Your task to perform on an android device: set default search engine in the chrome app Image 0: 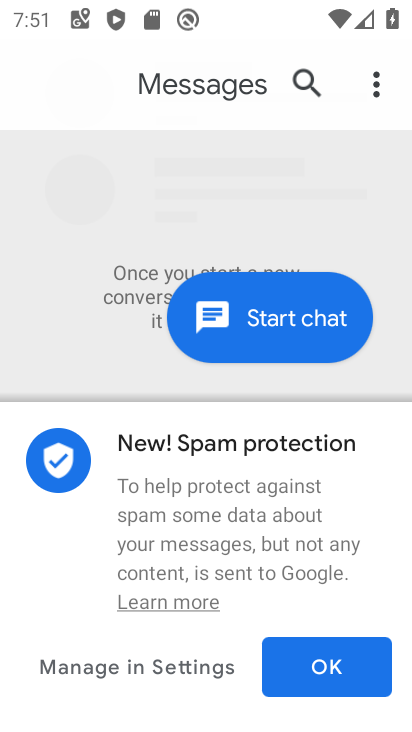
Step 0: press home button
Your task to perform on an android device: set default search engine in the chrome app Image 1: 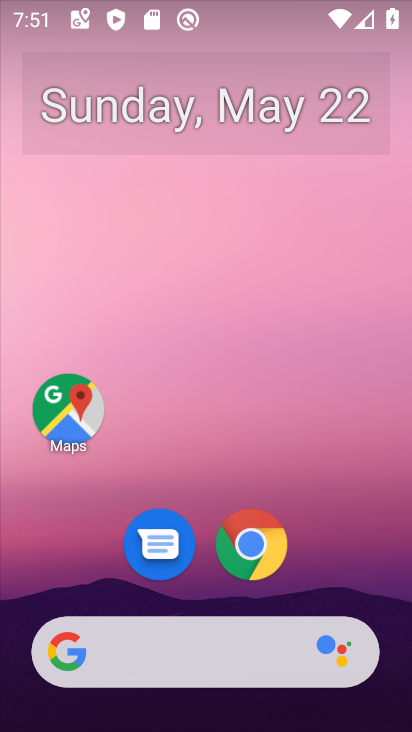
Step 1: click (255, 536)
Your task to perform on an android device: set default search engine in the chrome app Image 2: 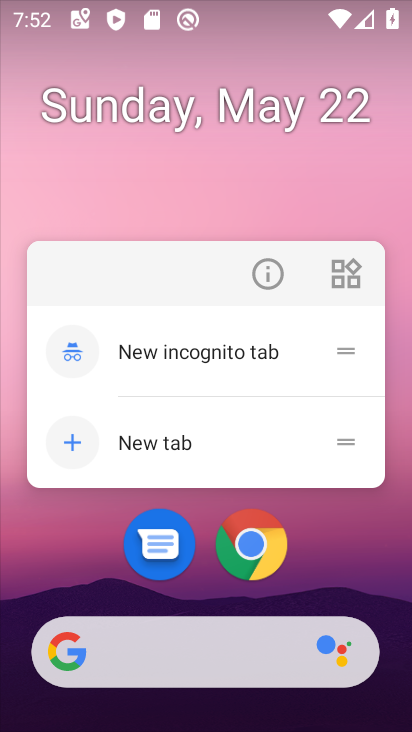
Step 2: click (255, 552)
Your task to perform on an android device: set default search engine in the chrome app Image 3: 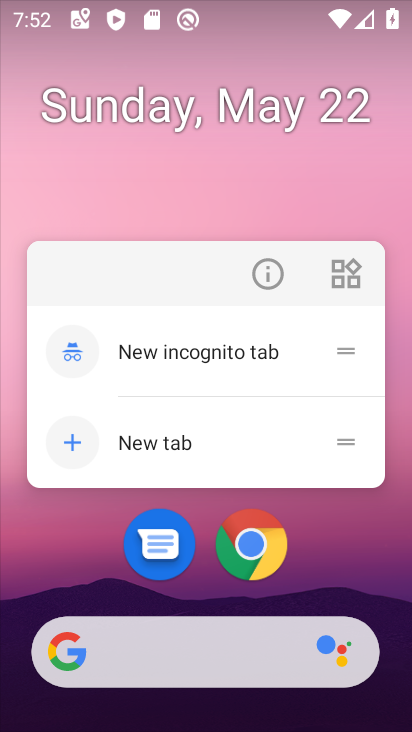
Step 3: click (249, 548)
Your task to perform on an android device: set default search engine in the chrome app Image 4: 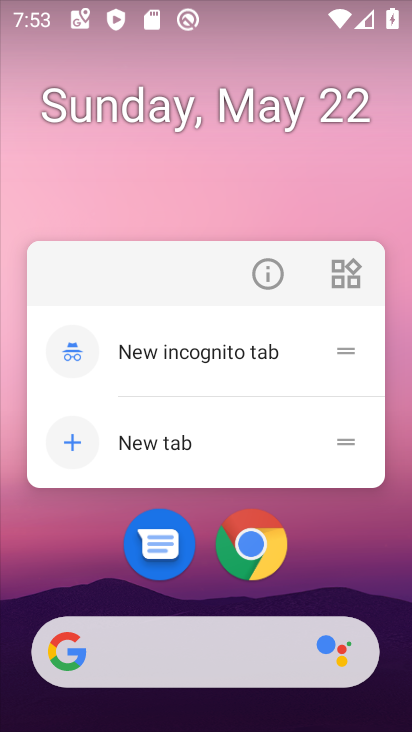
Step 4: drag from (344, 575) to (317, 16)
Your task to perform on an android device: set default search engine in the chrome app Image 5: 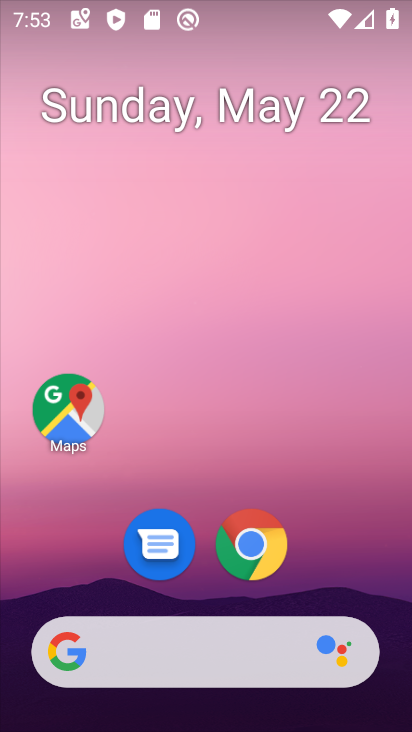
Step 5: drag from (359, 472) to (284, 49)
Your task to perform on an android device: set default search engine in the chrome app Image 6: 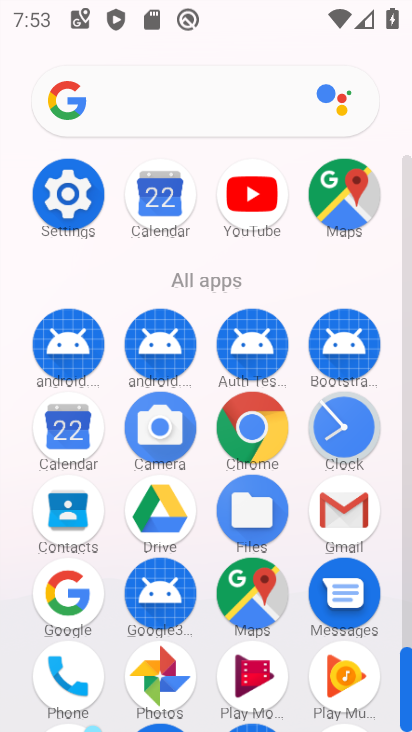
Step 6: click (255, 428)
Your task to perform on an android device: set default search engine in the chrome app Image 7: 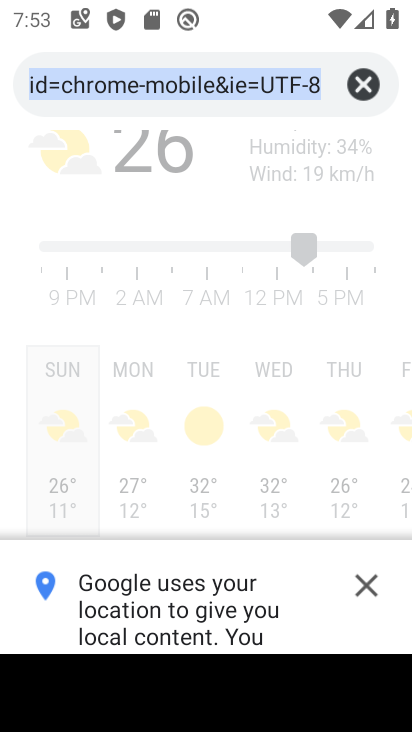
Step 7: click (363, 84)
Your task to perform on an android device: set default search engine in the chrome app Image 8: 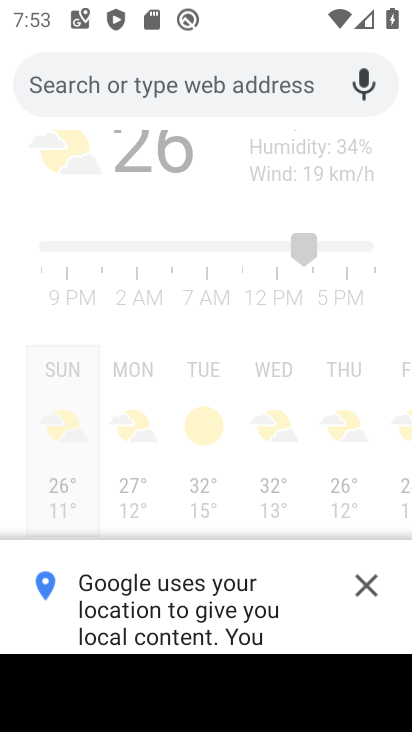
Step 8: press back button
Your task to perform on an android device: set default search engine in the chrome app Image 9: 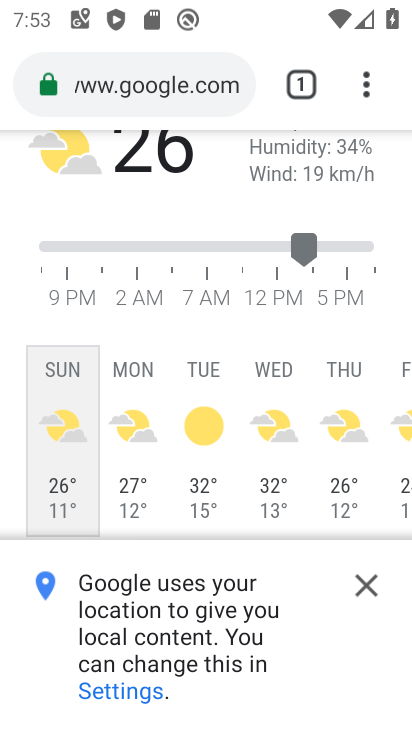
Step 9: drag from (368, 101) to (157, 582)
Your task to perform on an android device: set default search engine in the chrome app Image 10: 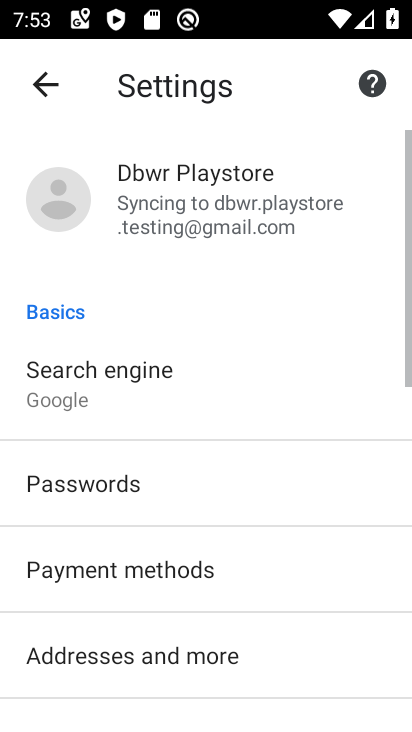
Step 10: click (114, 378)
Your task to perform on an android device: set default search engine in the chrome app Image 11: 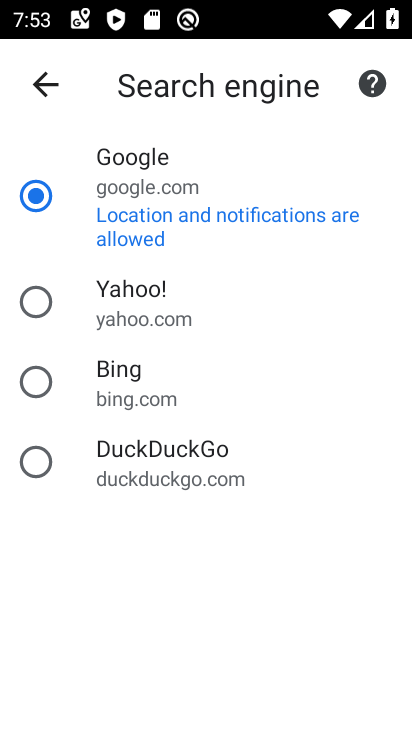
Step 11: task complete